Your task to perform on an android device: toggle pop-ups in chrome Image 0: 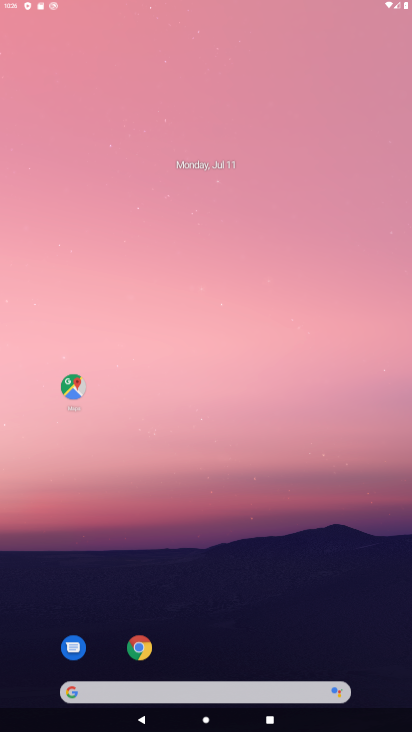
Step 0: press home button
Your task to perform on an android device: toggle pop-ups in chrome Image 1: 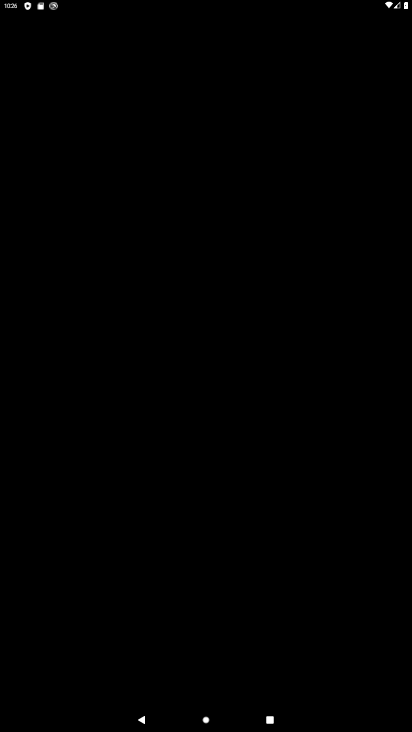
Step 1: drag from (281, 598) to (265, 166)
Your task to perform on an android device: toggle pop-ups in chrome Image 2: 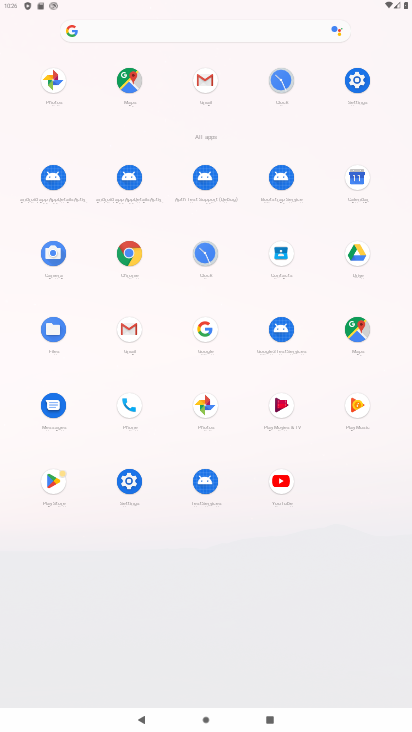
Step 2: click (130, 260)
Your task to perform on an android device: toggle pop-ups in chrome Image 3: 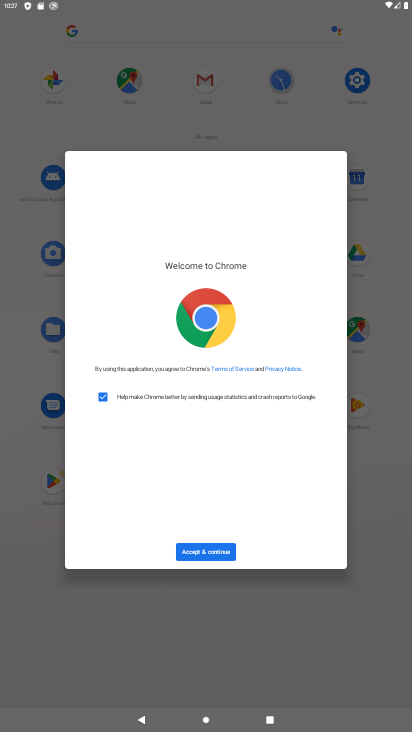
Step 3: click (207, 549)
Your task to perform on an android device: toggle pop-ups in chrome Image 4: 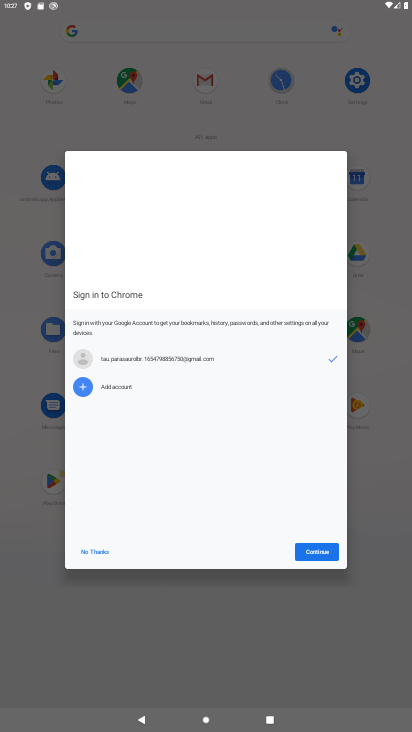
Step 4: click (316, 556)
Your task to perform on an android device: toggle pop-ups in chrome Image 5: 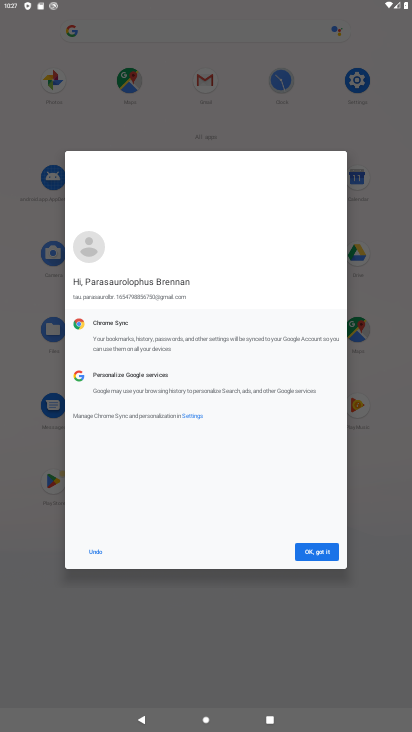
Step 5: click (326, 549)
Your task to perform on an android device: toggle pop-ups in chrome Image 6: 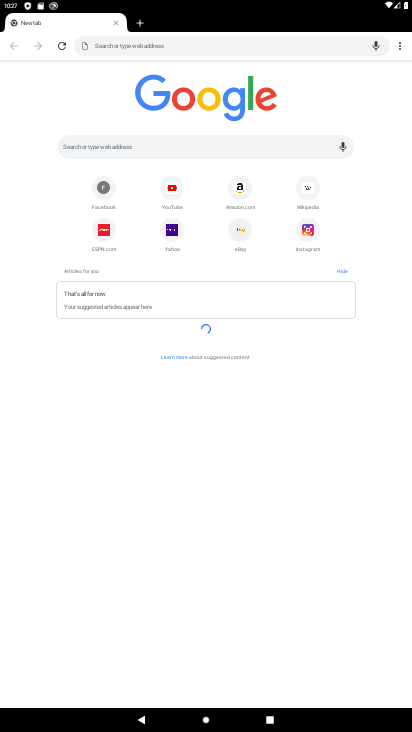
Step 6: click (401, 41)
Your task to perform on an android device: toggle pop-ups in chrome Image 7: 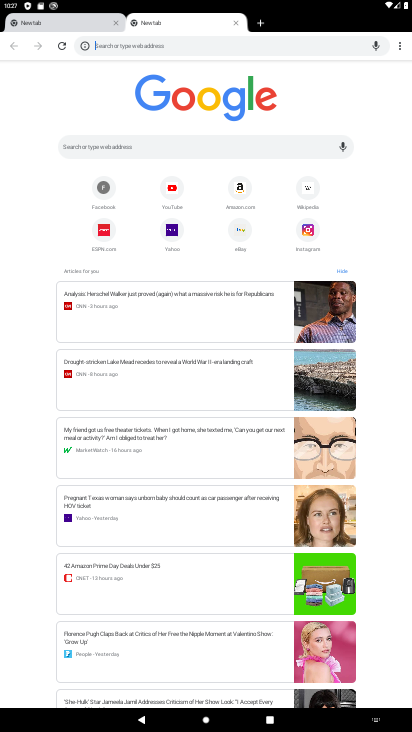
Step 7: drag from (401, 36) to (302, 213)
Your task to perform on an android device: toggle pop-ups in chrome Image 8: 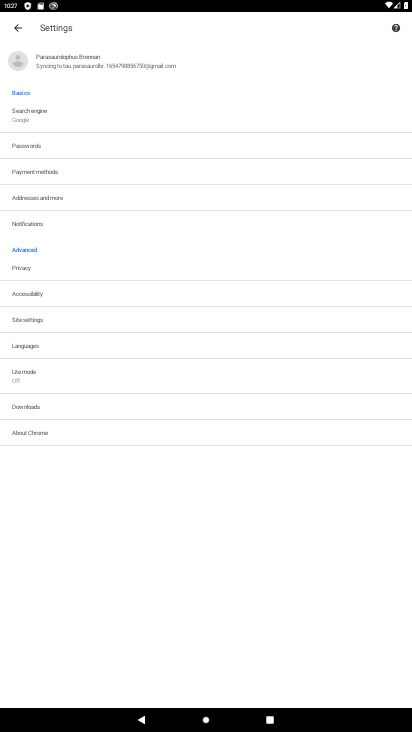
Step 8: click (42, 313)
Your task to perform on an android device: toggle pop-ups in chrome Image 9: 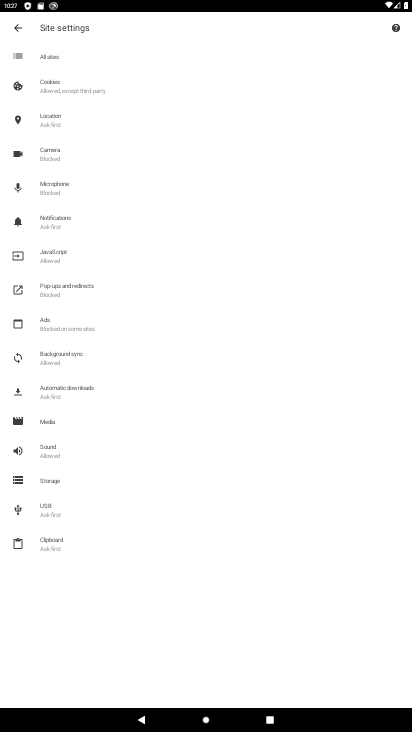
Step 9: click (85, 290)
Your task to perform on an android device: toggle pop-ups in chrome Image 10: 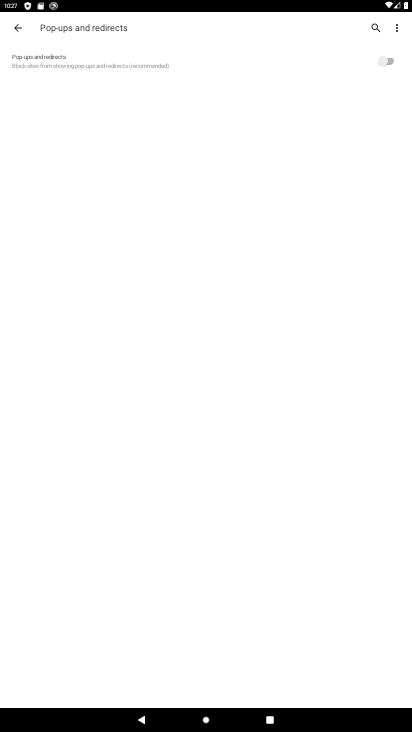
Step 10: click (380, 55)
Your task to perform on an android device: toggle pop-ups in chrome Image 11: 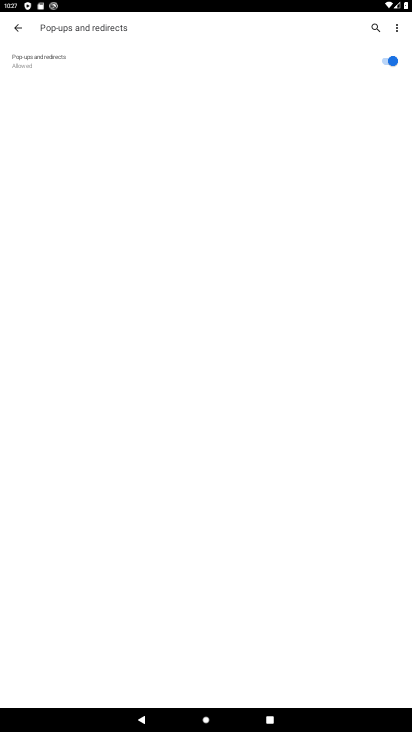
Step 11: task complete